Your task to perform on an android device: When is my next meeting? Image 0: 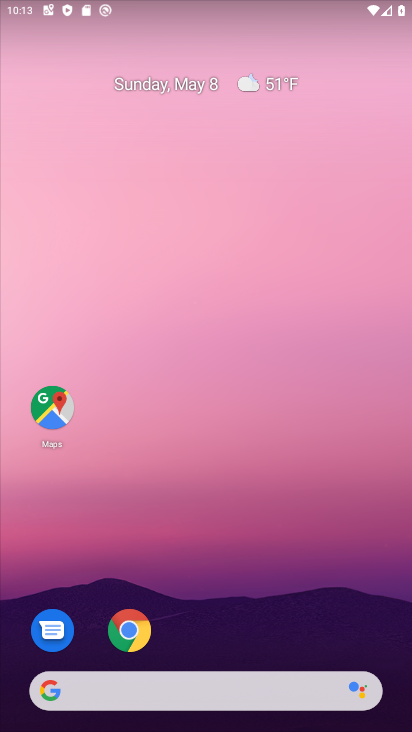
Step 0: drag from (387, 639) to (289, 20)
Your task to perform on an android device: When is my next meeting? Image 1: 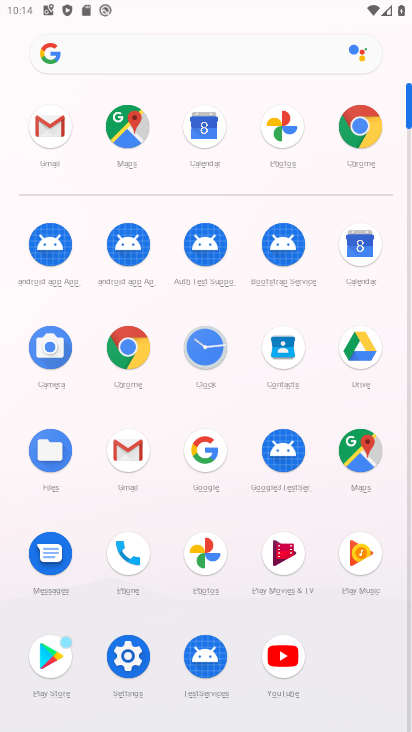
Step 1: click (367, 247)
Your task to perform on an android device: When is my next meeting? Image 2: 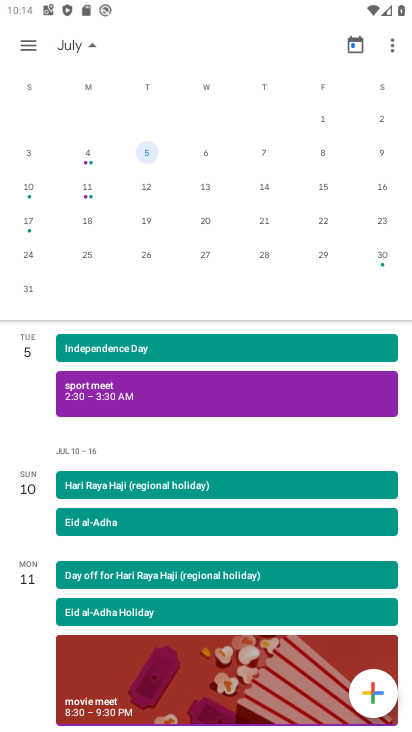
Step 2: click (29, 51)
Your task to perform on an android device: When is my next meeting? Image 3: 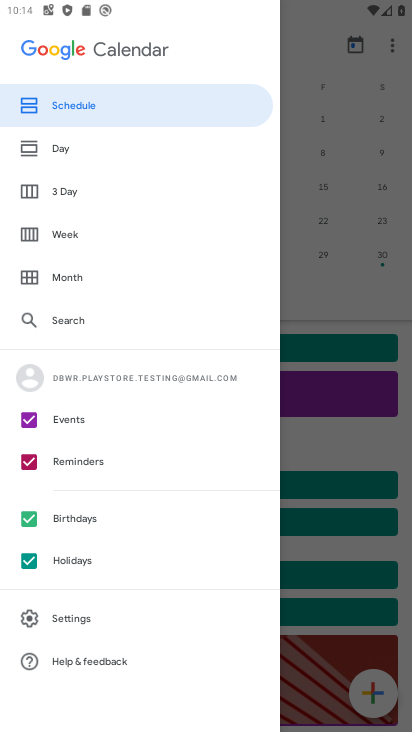
Step 3: click (102, 100)
Your task to perform on an android device: When is my next meeting? Image 4: 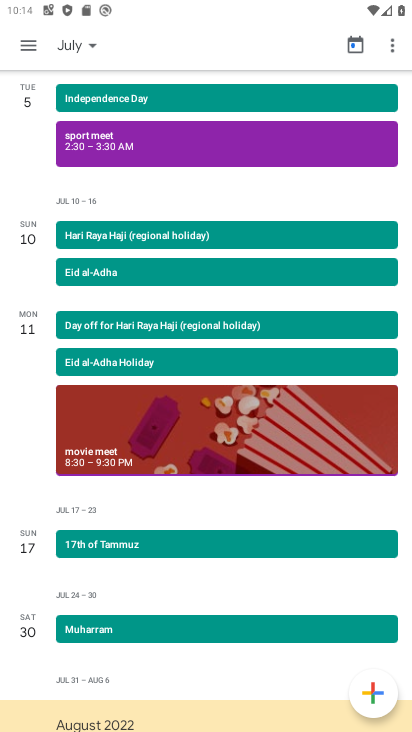
Step 4: task complete